Your task to perform on an android device: Open CNN.com Image 0: 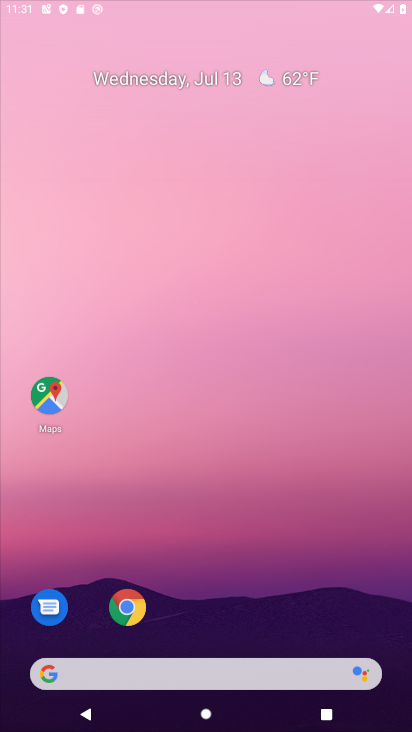
Step 0: click (287, 117)
Your task to perform on an android device: Open CNN.com Image 1: 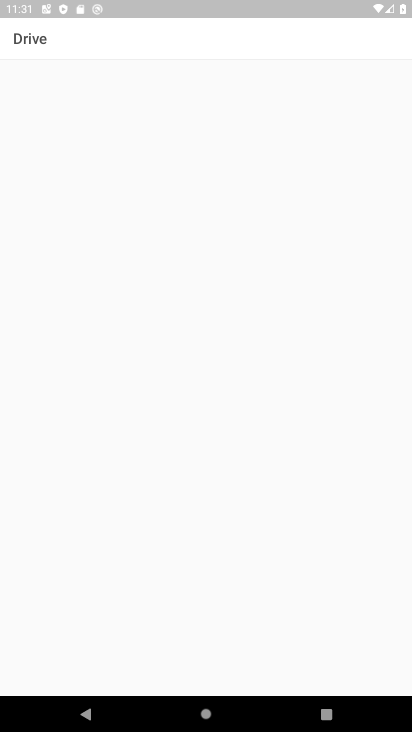
Step 1: press home button
Your task to perform on an android device: Open CNN.com Image 2: 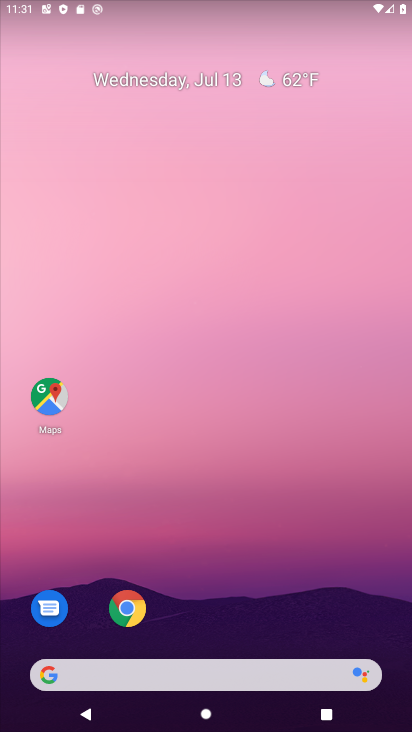
Step 2: drag from (251, 672) to (251, 163)
Your task to perform on an android device: Open CNN.com Image 3: 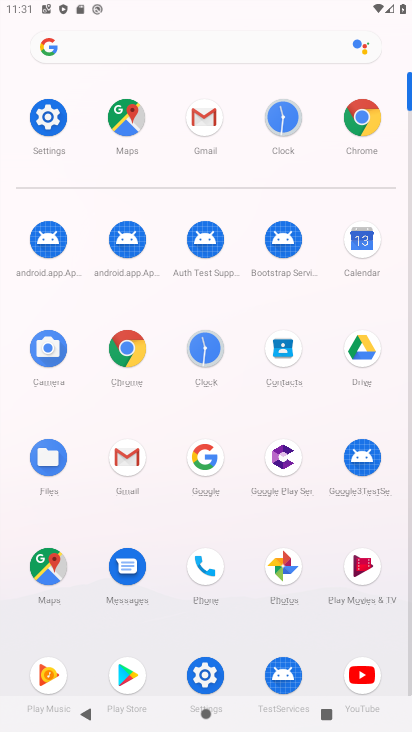
Step 3: click (128, 347)
Your task to perform on an android device: Open CNN.com Image 4: 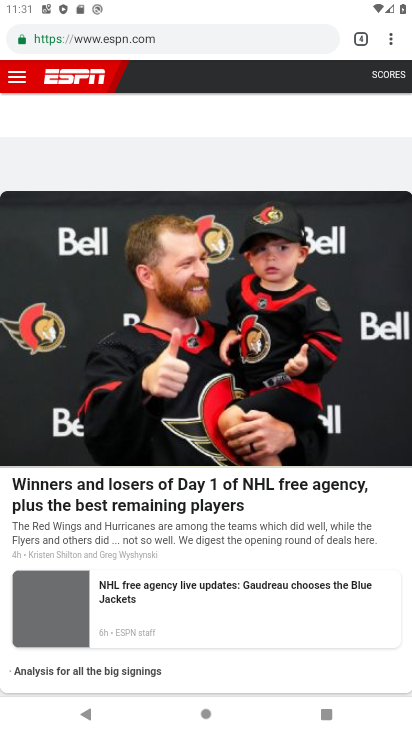
Step 4: click (392, 41)
Your task to perform on an android device: Open CNN.com Image 5: 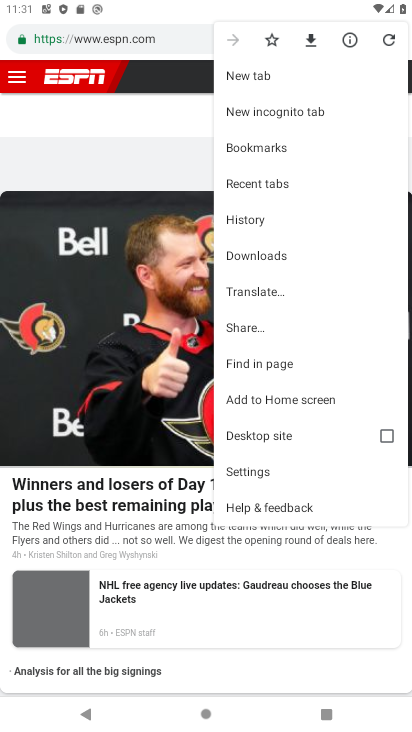
Step 5: click (241, 74)
Your task to perform on an android device: Open CNN.com Image 6: 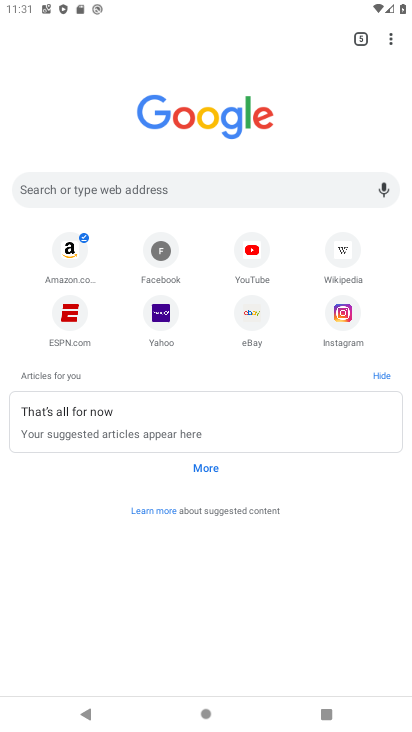
Step 6: click (200, 184)
Your task to perform on an android device: Open CNN.com Image 7: 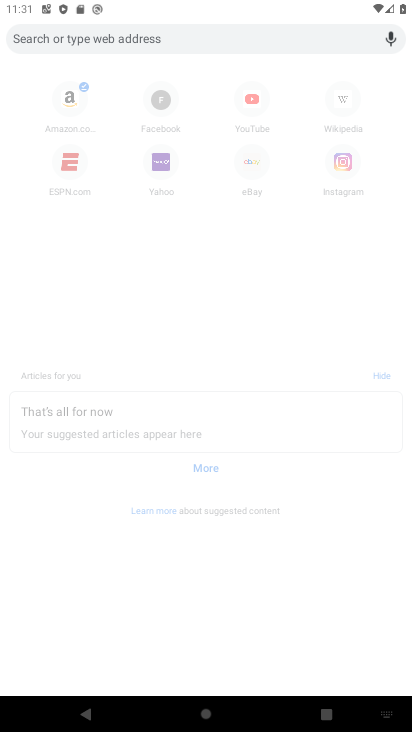
Step 7: type "CNN.com"
Your task to perform on an android device: Open CNN.com Image 8: 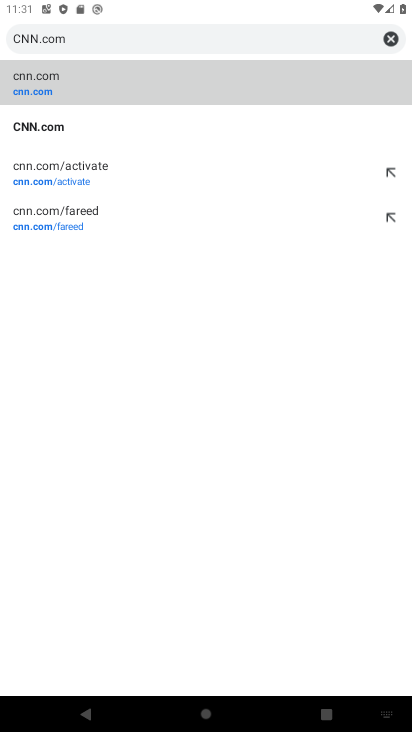
Step 8: click (64, 73)
Your task to perform on an android device: Open CNN.com Image 9: 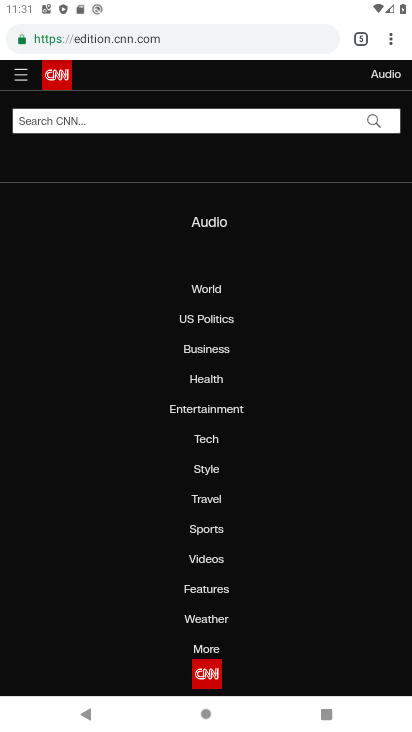
Step 9: task complete